Your task to perform on an android device: Clear the shopping cart on walmart. Search for usb-a to usb-b on walmart, select the first entry, and add it to the cart. Image 0: 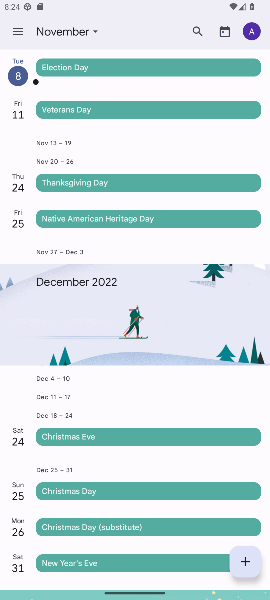
Step 0: press home button
Your task to perform on an android device: Clear the shopping cart on walmart. Search for usb-a to usb-b on walmart, select the first entry, and add it to the cart. Image 1: 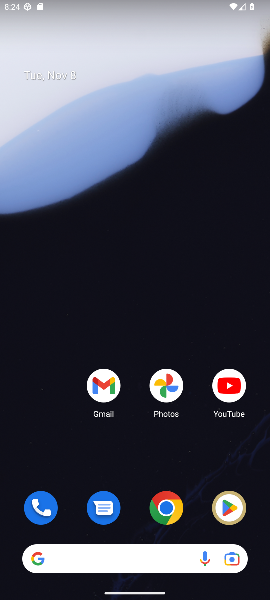
Step 1: click (166, 515)
Your task to perform on an android device: Clear the shopping cart on walmart. Search for usb-a to usb-b on walmart, select the first entry, and add it to the cart. Image 2: 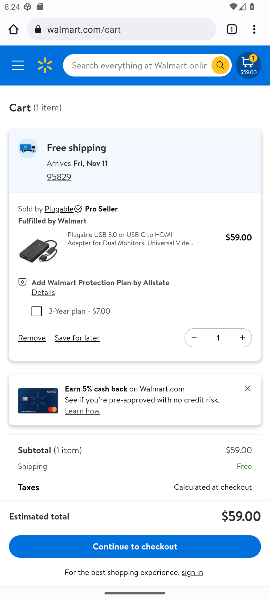
Step 2: task complete